Your task to perform on an android device: turn off translation in the chrome app Image 0: 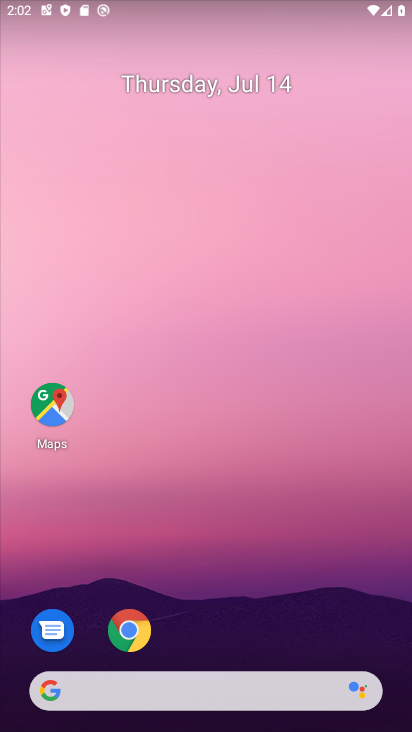
Step 0: click (126, 626)
Your task to perform on an android device: turn off translation in the chrome app Image 1: 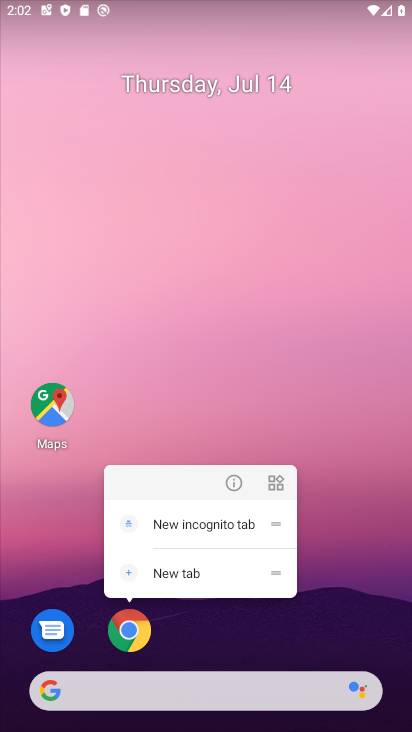
Step 1: click (142, 633)
Your task to perform on an android device: turn off translation in the chrome app Image 2: 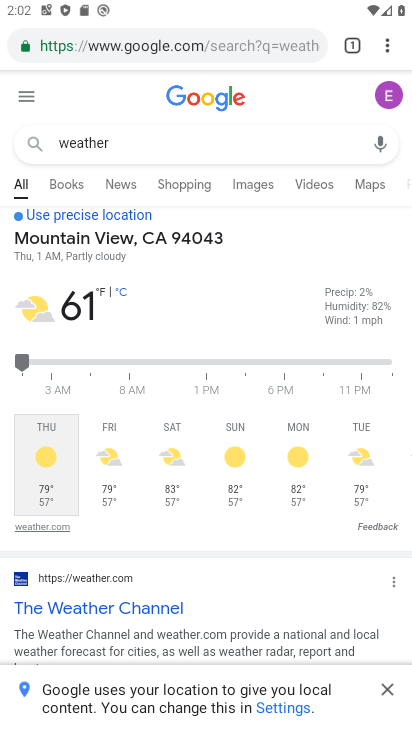
Step 2: click (391, 47)
Your task to perform on an android device: turn off translation in the chrome app Image 3: 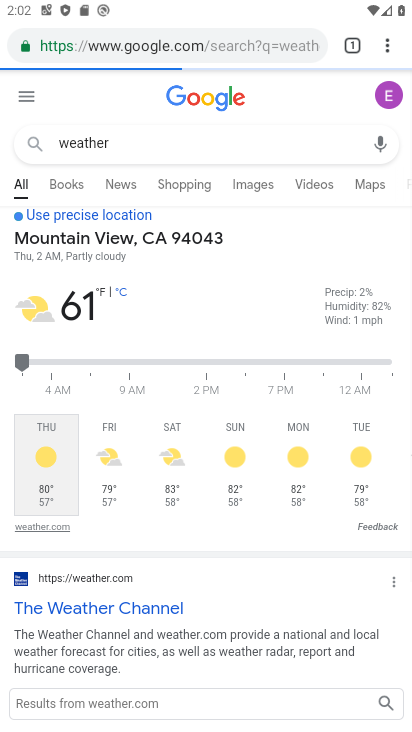
Step 3: click (385, 49)
Your task to perform on an android device: turn off translation in the chrome app Image 4: 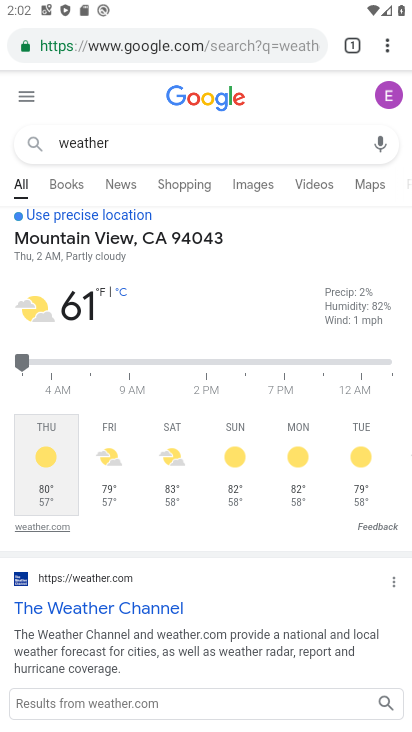
Step 4: click (387, 43)
Your task to perform on an android device: turn off translation in the chrome app Image 5: 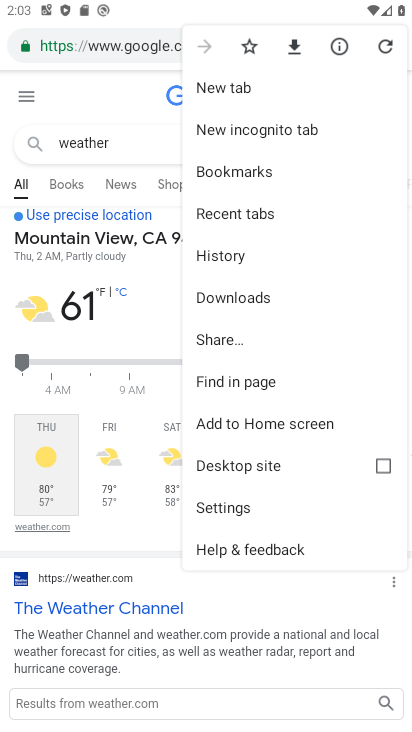
Step 5: click (245, 513)
Your task to perform on an android device: turn off translation in the chrome app Image 6: 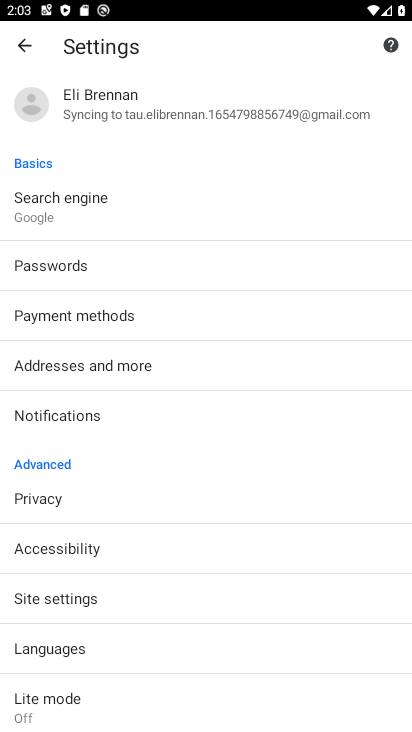
Step 6: click (162, 643)
Your task to perform on an android device: turn off translation in the chrome app Image 7: 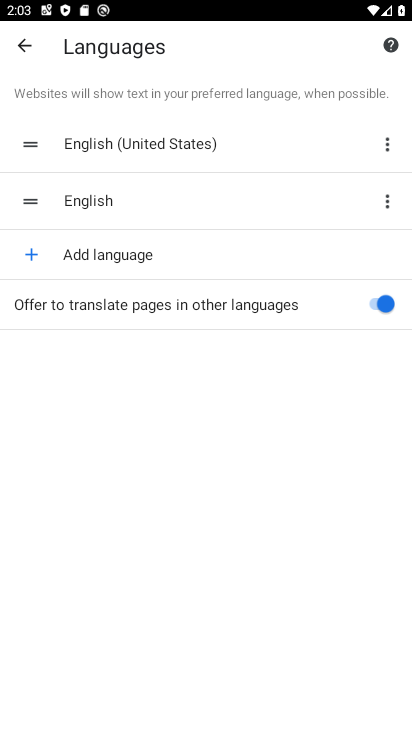
Step 7: click (395, 309)
Your task to perform on an android device: turn off translation in the chrome app Image 8: 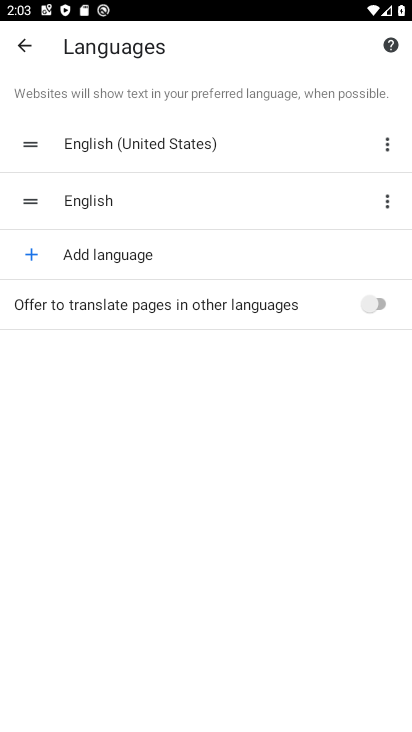
Step 8: task complete